Your task to perform on an android device: Open Yahoo.com Image 0: 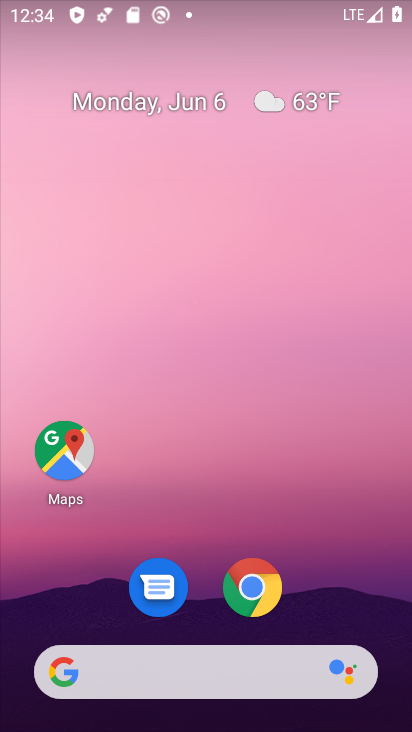
Step 0: click (263, 591)
Your task to perform on an android device: Open Yahoo.com Image 1: 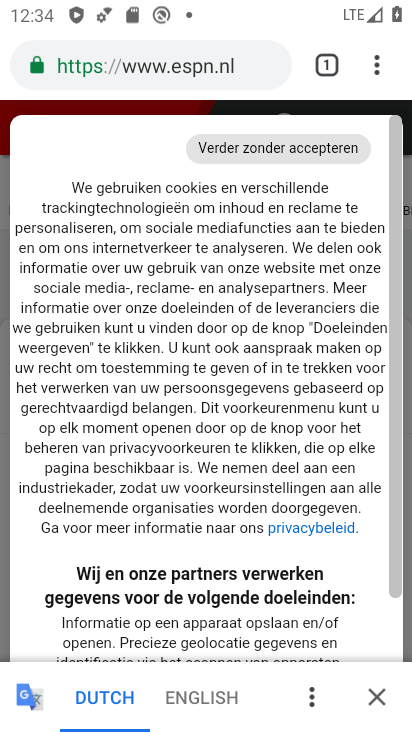
Step 1: click (329, 62)
Your task to perform on an android device: Open Yahoo.com Image 2: 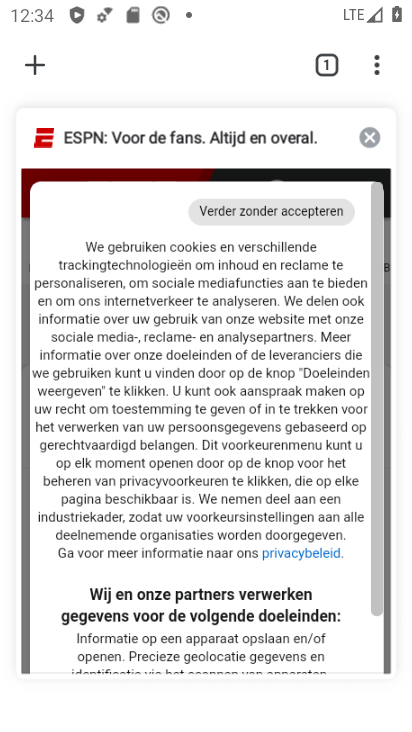
Step 2: click (25, 65)
Your task to perform on an android device: Open Yahoo.com Image 3: 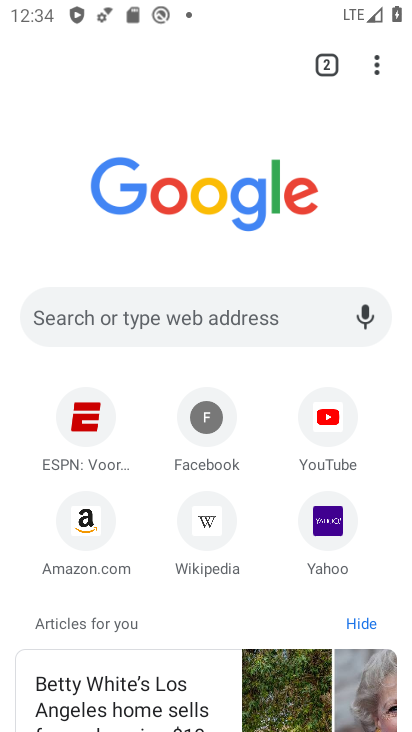
Step 3: click (346, 531)
Your task to perform on an android device: Open Yahoo.com Image 4: 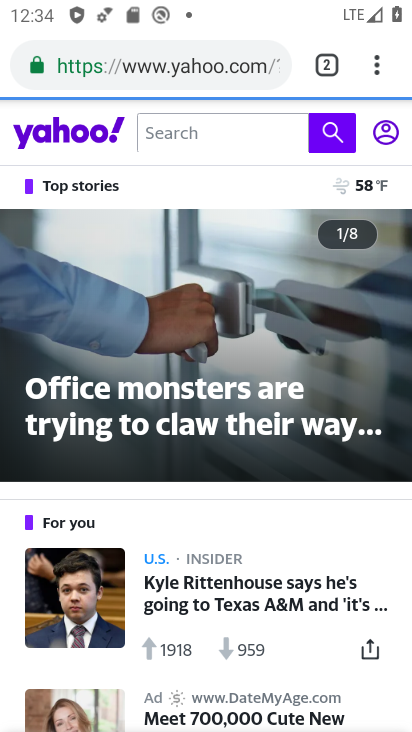
Step 4: task complete